Your task to perform on an android device: Show me recent news Image 0: 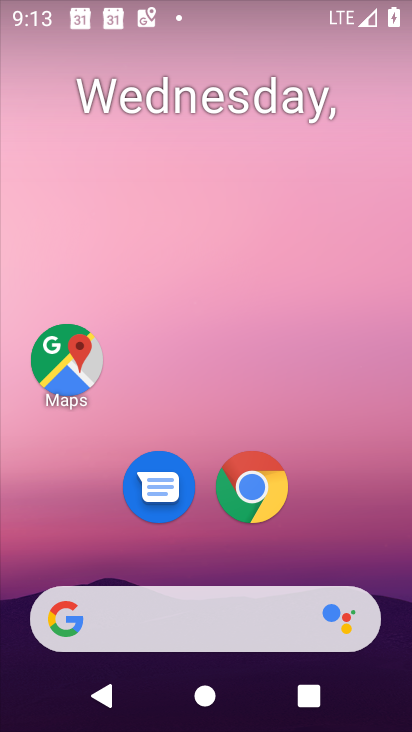
Step 0: drag from (232, 660) to (196, 300)
Your task to perform on an android device: Show me recent news Image 1: 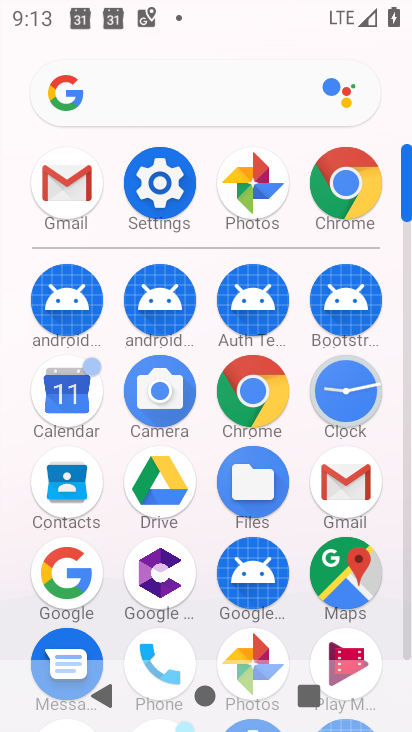
Step 1: click (160, 101)
Your task to perform on an android device: Show me recent news Image 2: 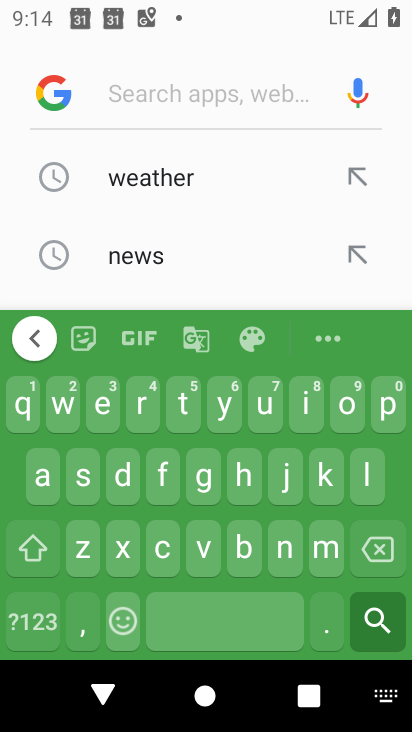
Step 2: click (131, 400)
Your task to perform on an android device: Show me recent news Image 3: 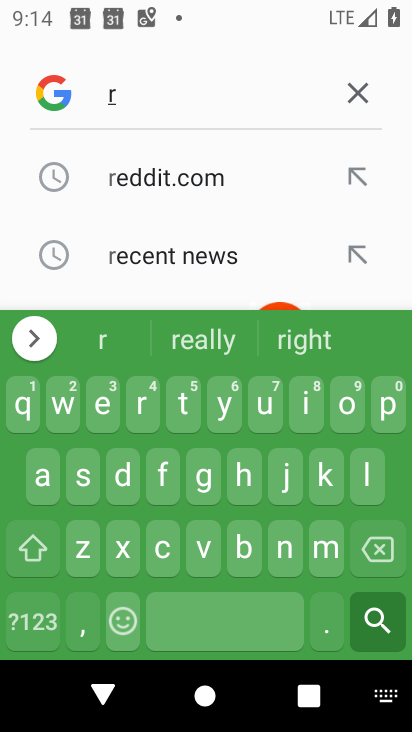
Step 3: click (161, 257)
Your task to perform on an android device: Show me recent news Image 4: 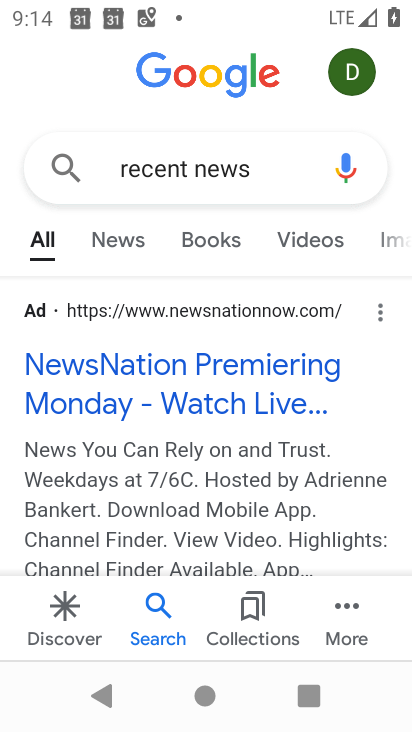
Step 4: task complete